Your task to perform on an android device: Find coffee shops on Maps Image 0: 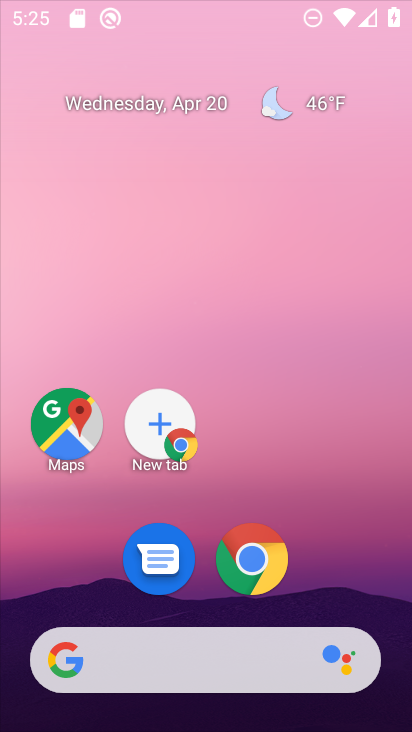
Step 0: click (310, 120)
Your task to perform on an android device: Find coffee shops on Maps Image 1: 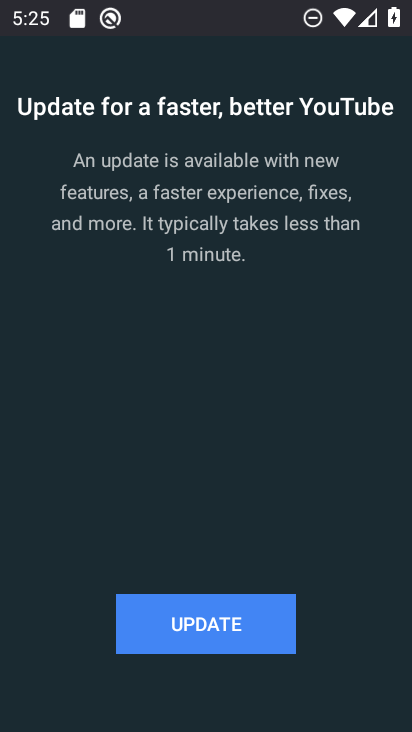
Step 1: press home button
Your task to perform on an android device: Find coffee shops on Maps Image 2: 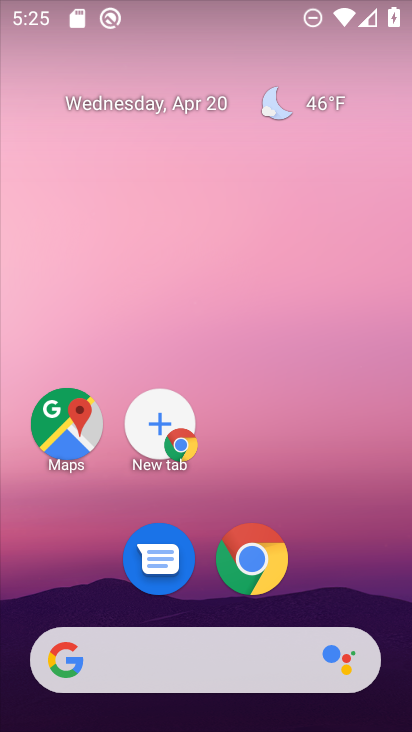
Step 2: click (62, 416)
Your task to perform on an android device: Find coffee shops on Maps Image 3: 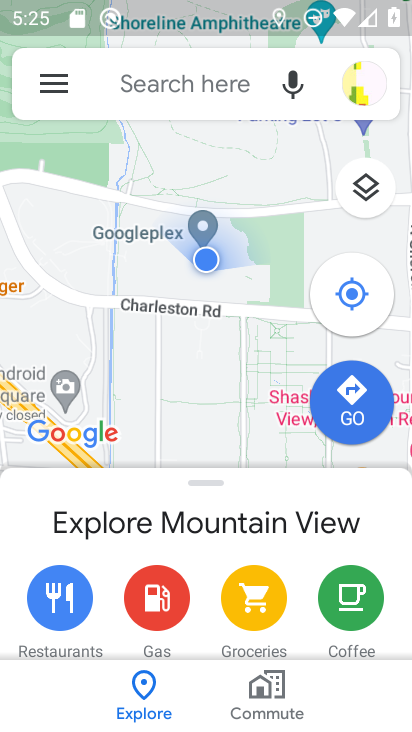
Step 3: click (160, 77)
Your task to perform on an android device: Find coffee shops on Maps Image 4: 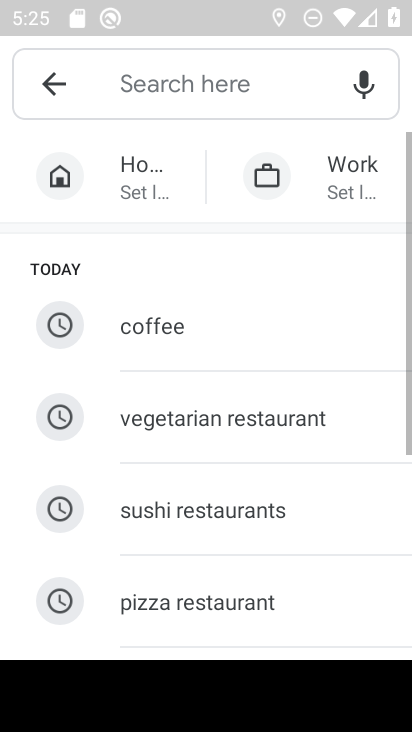
Step 4: click (175, 309)
Your task to perform on an android device: Find coffee shops on Maps Image 5: 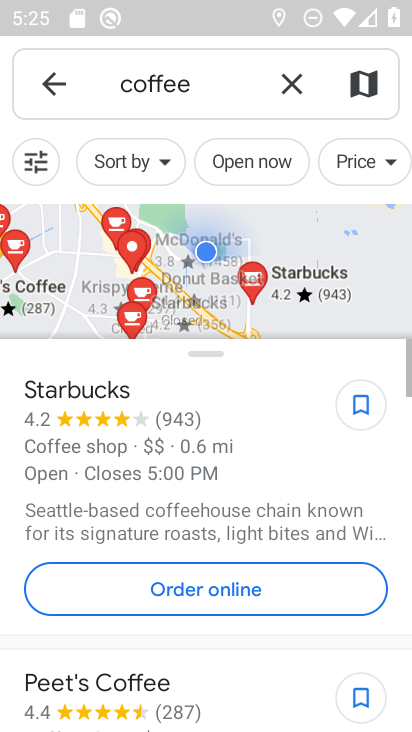
Step 5: task complete